Your task to perform on an android device: refresh tabs in the chrome app Image 0: 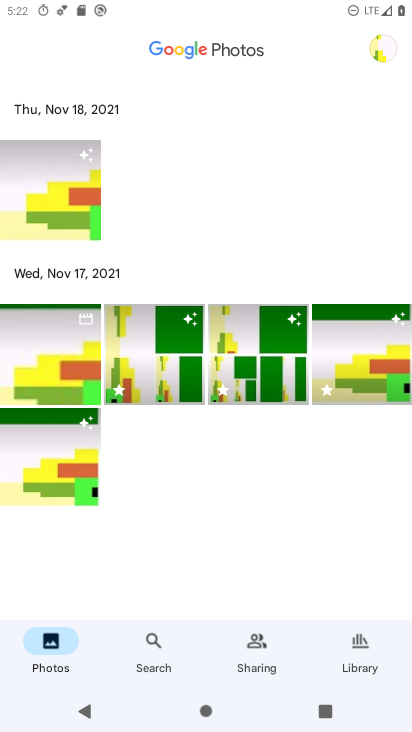
Step 0: press home button
Your task to perform on an android device: refresh tabs in the chrome app Image 1: 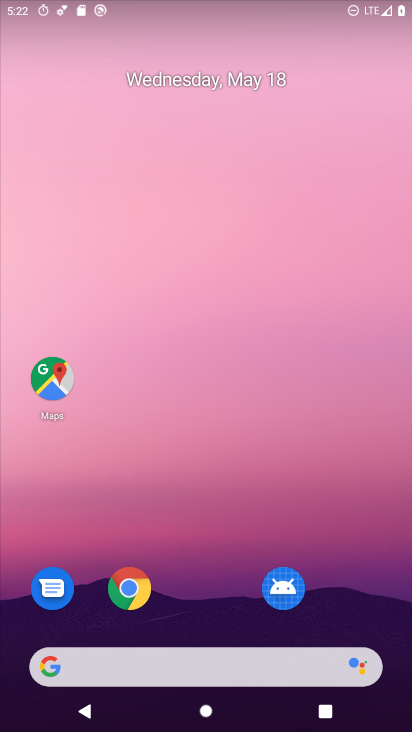
Step 1: click (121, 589)
Your task to perform on an android device: refresh tabs in the chrome app Image 2: 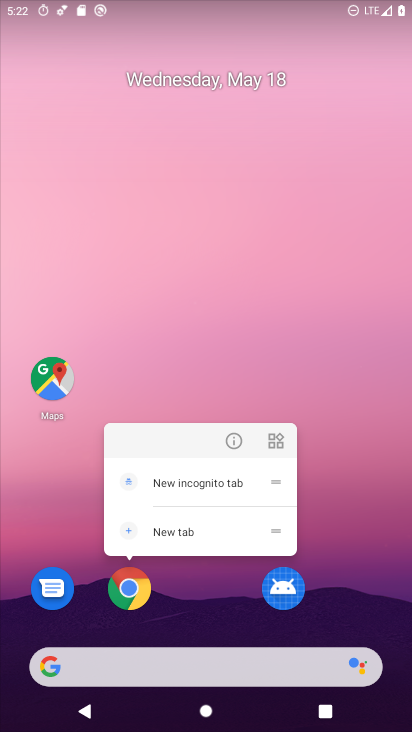
Step 2: click (131, 582)
Your task to perform on an android device: refresh tabs in the chrome app Image 3: 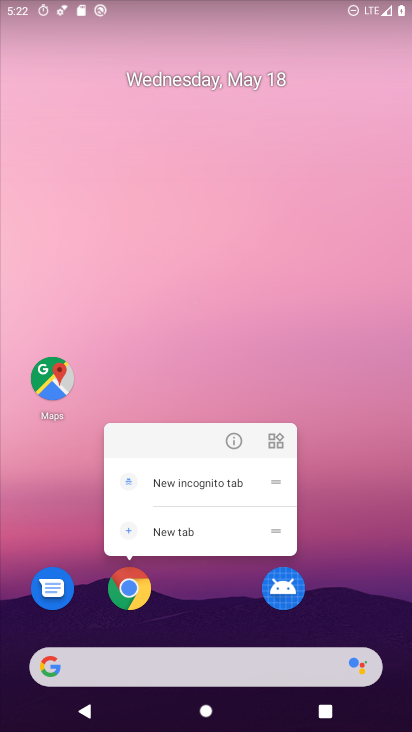
Step 3: click (131, 582)
Your task to perform on an android device: refresh tabs in the chrome app Image 4: 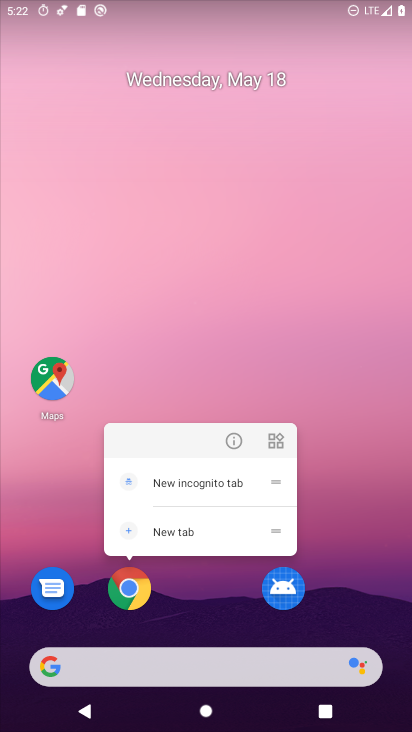
Step 4: click (131, 582)
Your task to perform on an android device: refresh tabs in the chrome app Image 5: 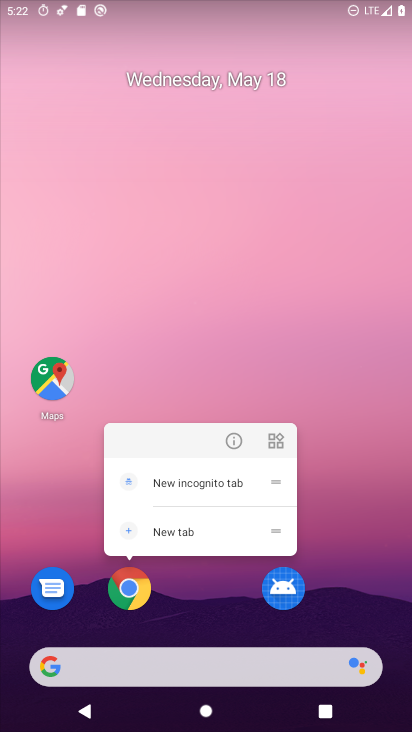
Step 5: click (227, 597)
Your task to perform on an android device: refresh tabs in the chrome app Image 6: 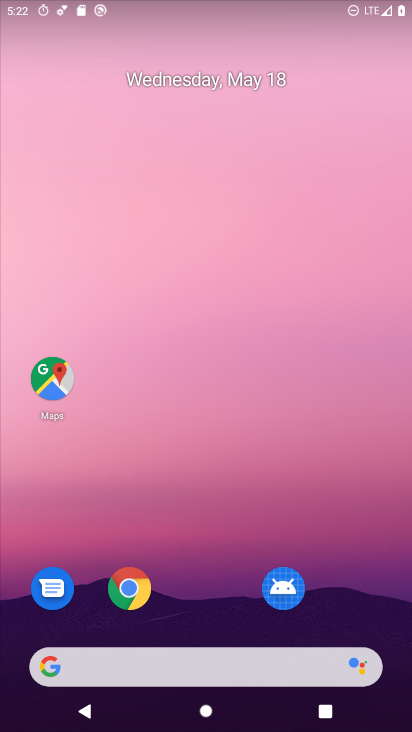
Step 6: drag from (227, 597) to (259, 30)
Your task to perform on an android device: refresh tabs in the chrome app Image 7: 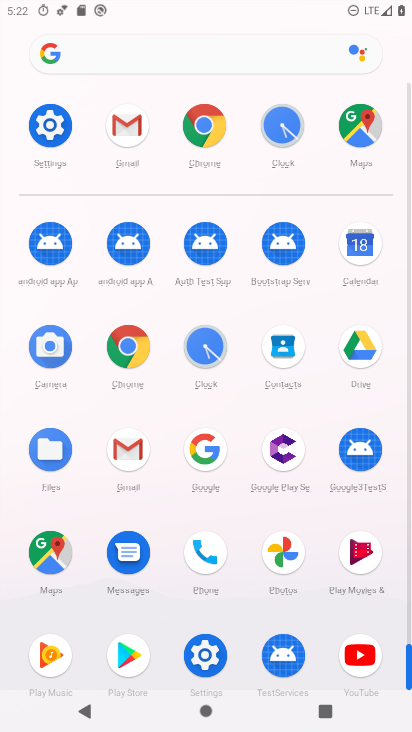
Step 7: click (125, 344)
Your task to perform on an android device: refresh tabs in the chrome app Image 8: 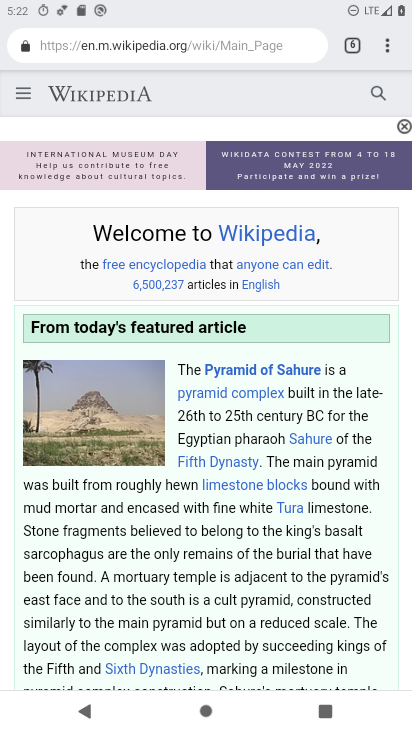
Step 8: drag from (388, 44) to (262, 83)
Your task to perform on an android device: refresh tabs in the chrome app Image 9: 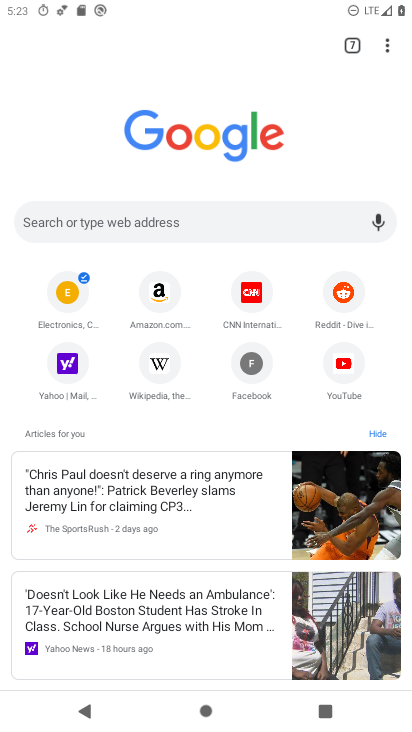
Step 9: click (384, 40)
Your task to perform on an android device: refresh tabs in the chrome app Image 10: 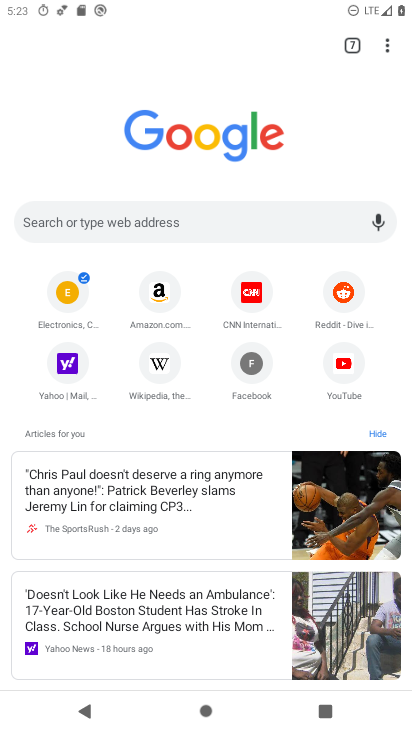
Step 10: task complete